Your task to perform on an android device: Go to calendar. Show me events next week Image 0: 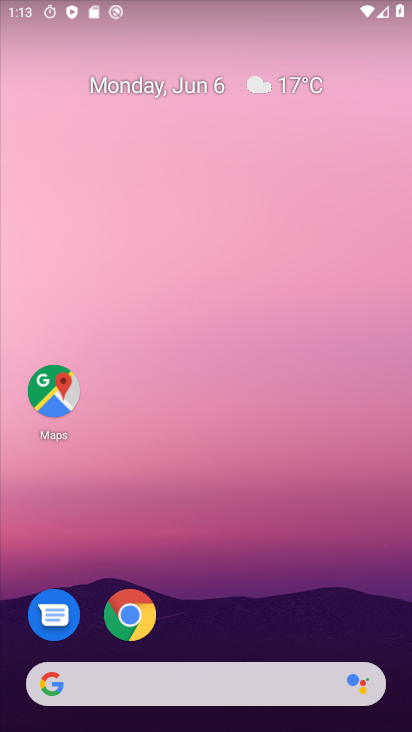
Step 0: drag from (191, 604) to (289, 102)
Your task to perform on an android device: Go to calendar. Show me events next week Image 1: 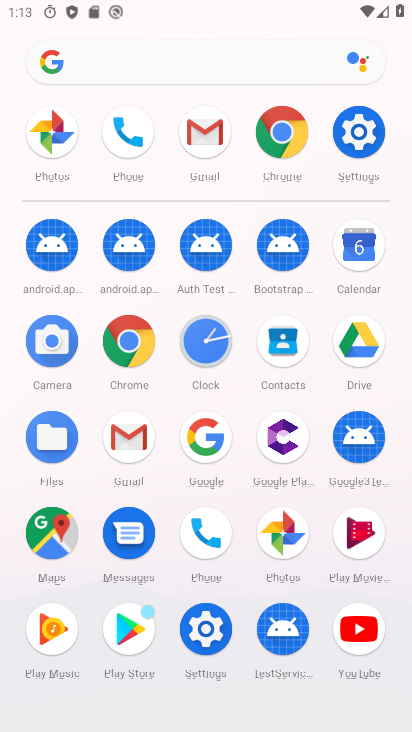
Step 1: click (360, 257)
Your task to perform on an android device: Go to calendar. Show me events next week Image 2: 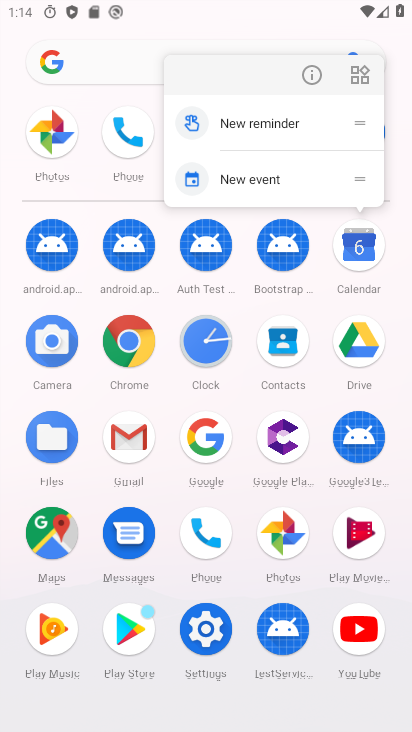
Step 2: click (319, 76)
Your task to perform on an android device: Go to calendar. Show me events next week Image 3: 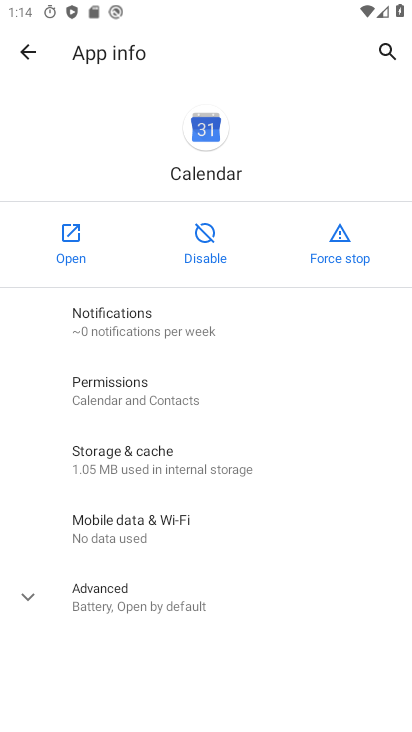
Step 3: click (60, 220)
Your task to perform on an android device: Go to calendar. Show me events next week Image 4: 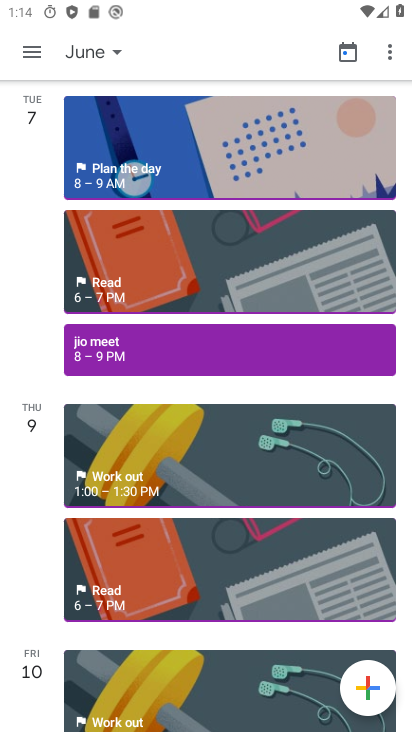
Step 4: click (99, 42)
Your task to perform on an android device: Go to calendar. Show me events next week Image 5: 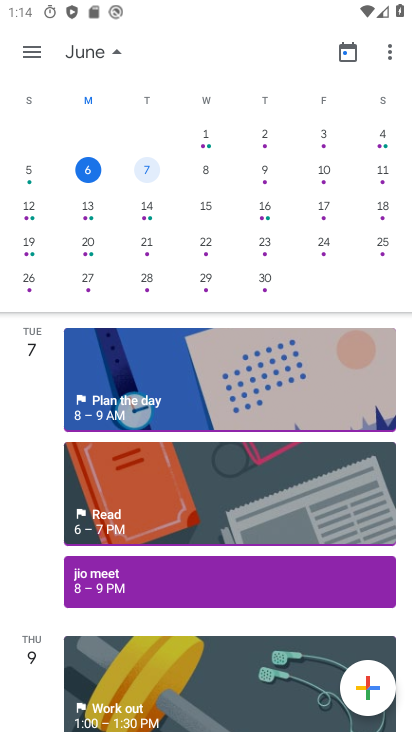
Step 5: click (326, 166)
Your task to perform on an android device: Go to calendar. Show me events next week Image 6: 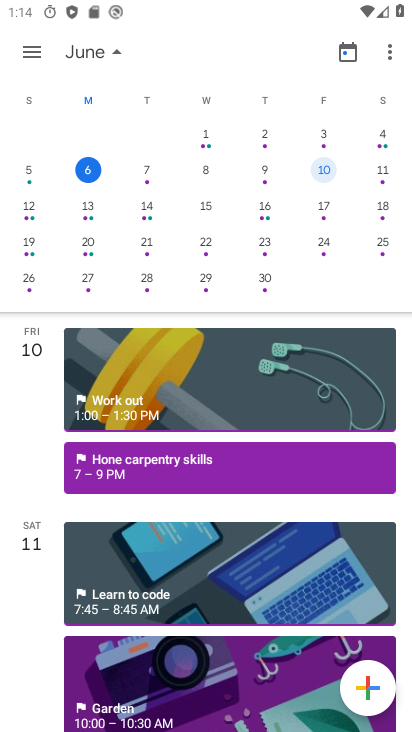
Step 6: task complete